Your task to perform on an android device: turn on the 12-hour format for clock Image 0: 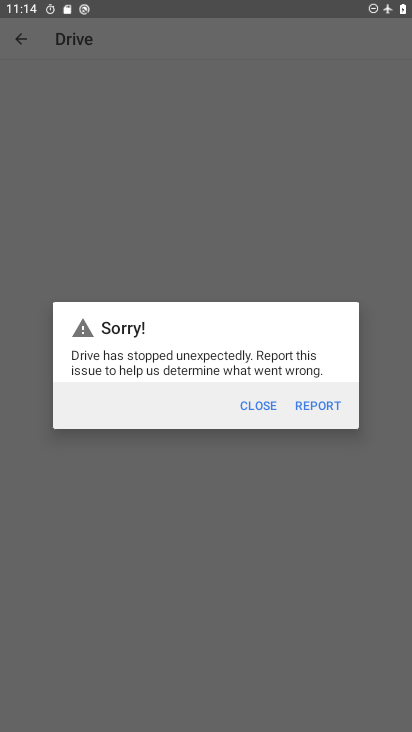
Step 0: press home button
Your task to perform on an android device: turn on the 12-hour format for clock Image 1: 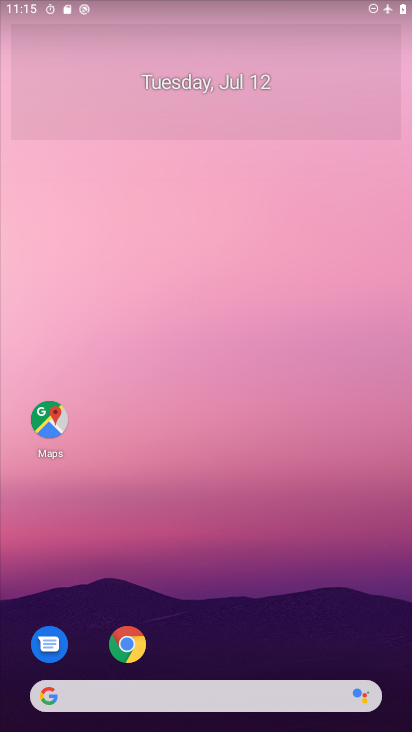
Step 1: drag from (208, 641) to (217, 236)
Your task to perform on an android device: turn on the 12-hour format for clock Image 2: 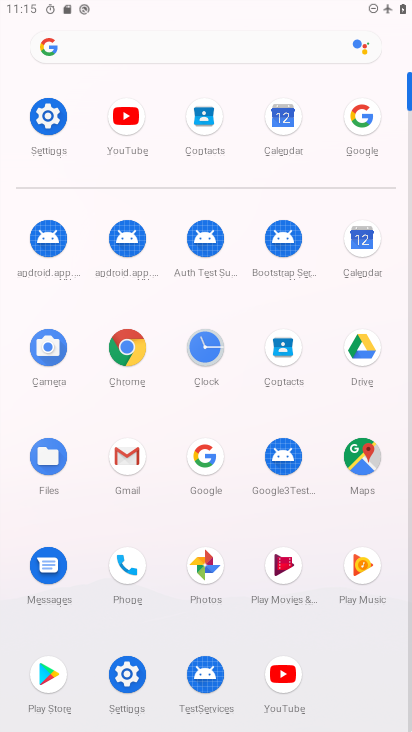
Step 2: click (184, 344)
Your task to perform on an android device: turn on the 12-hour format for clock Image 3: 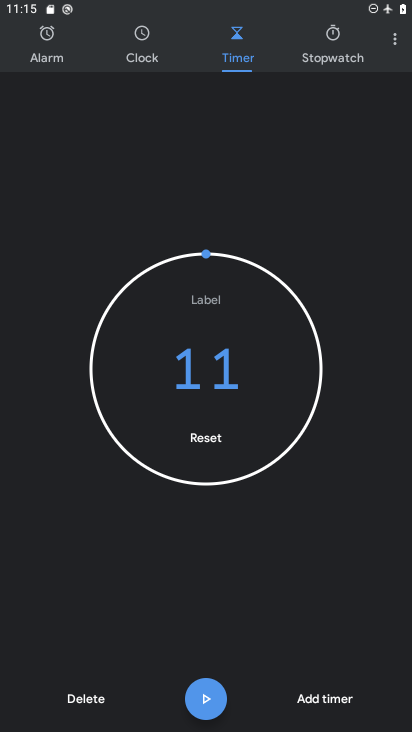
Step 3: click (388, 35)
Your task to perform on an android device: turn on the 12-hour format for clock Image 4: 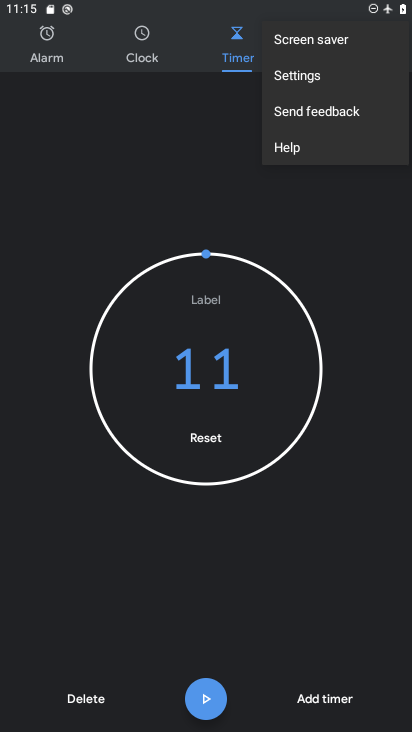
Step 4: click (316, 87)
Your task to perform on an android device: turn on the 12-hour format for clock Image 5: 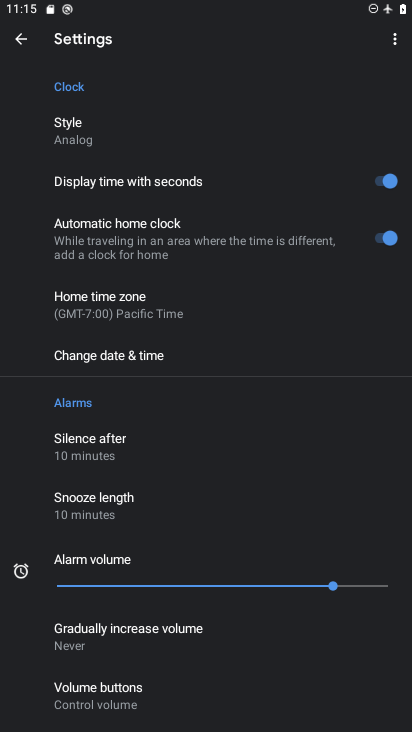
Step 5: click (166, 361)
Your task to perform on an android device: turn on the 12-hour format for clock Image 6: 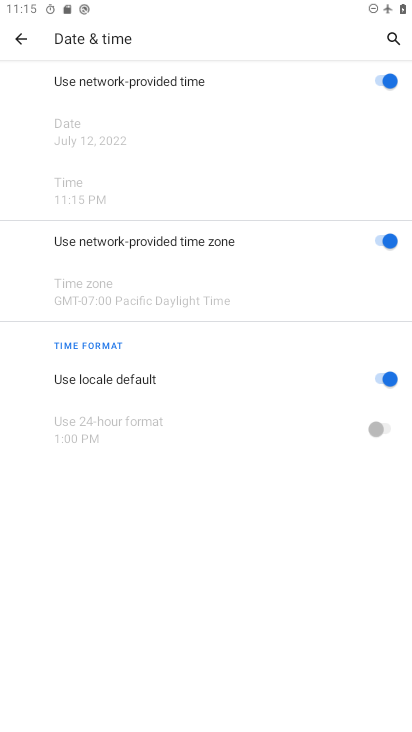
Step 6: task complete